Your task to perform on an android device: clear history in the chrome app Image 0: 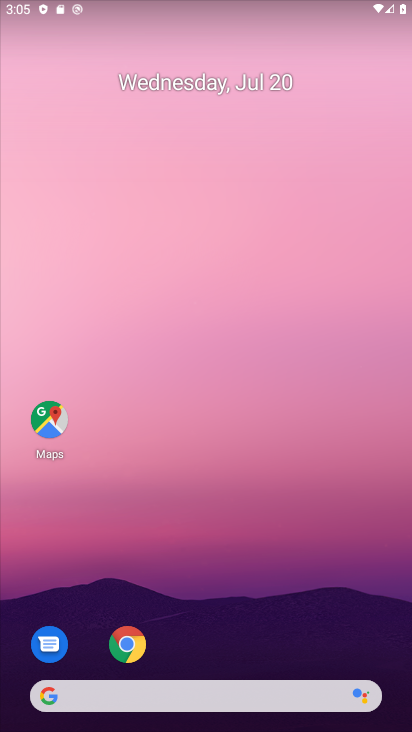
Step 0: click (136, 651)
Your task to perform on an android device: clear history in the chrome app Image 1: 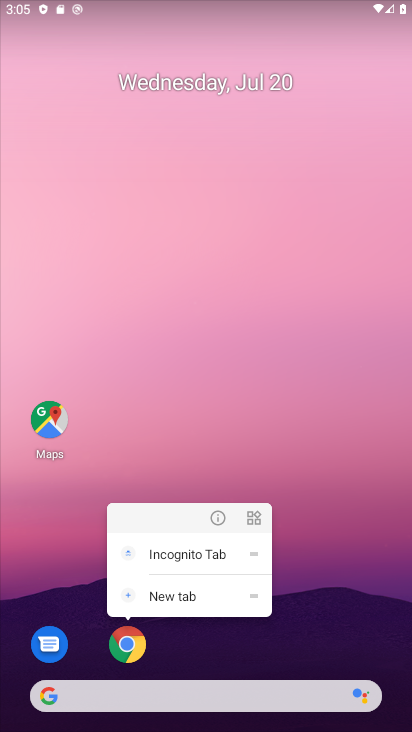
Step 1: click (136, 651)
Your task to perform on an android device: clear history in the chrome app Image 2: 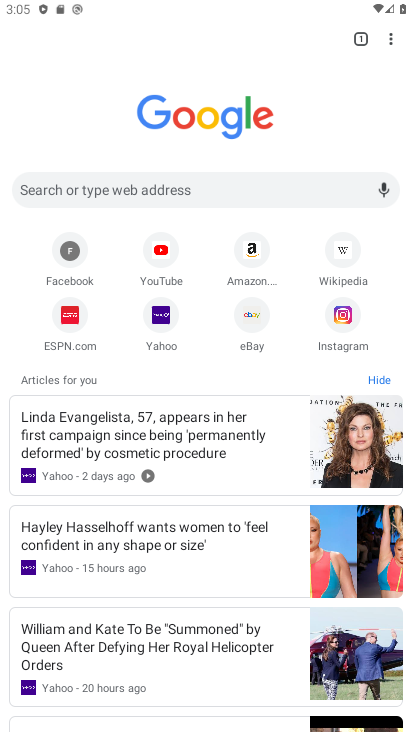
Step 2: click (392, 39)
Your task to perform on an android device: clear history in the chrome app Image 3: 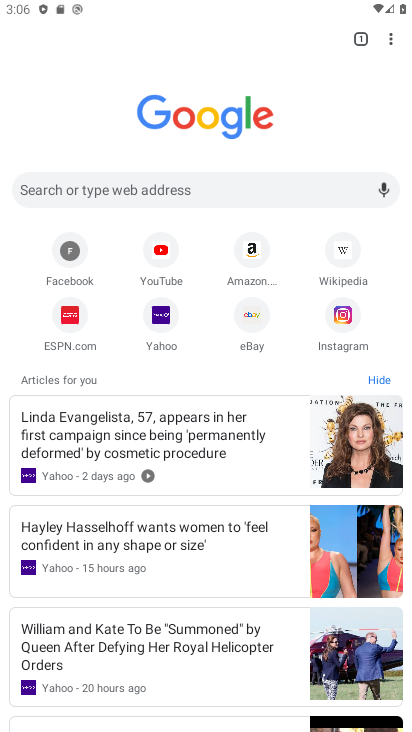
Step 3: click (389, 35)
Your task to perform on an android device: clear history in the chrome app Image 4: 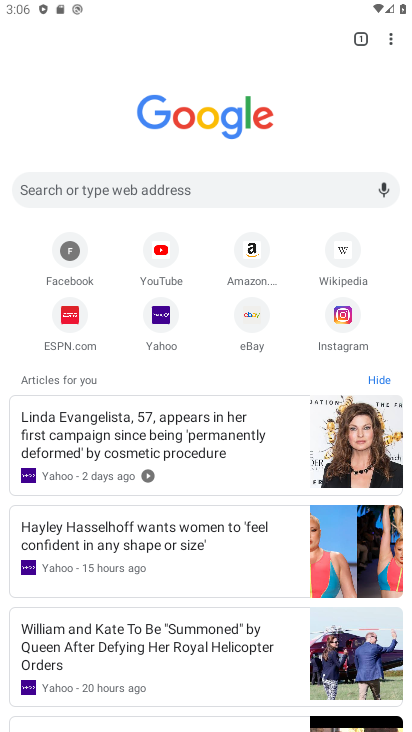
Step 4: click (389, 32)
Your task to perform on an android device: clear history in the chrome app Image 5: 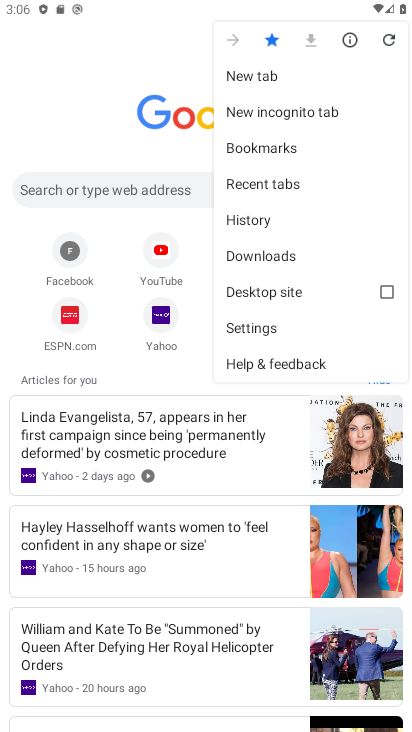
Step 5: click (239, 222)
Your task to perform on an android device: clear history in the chrome app Image 6: 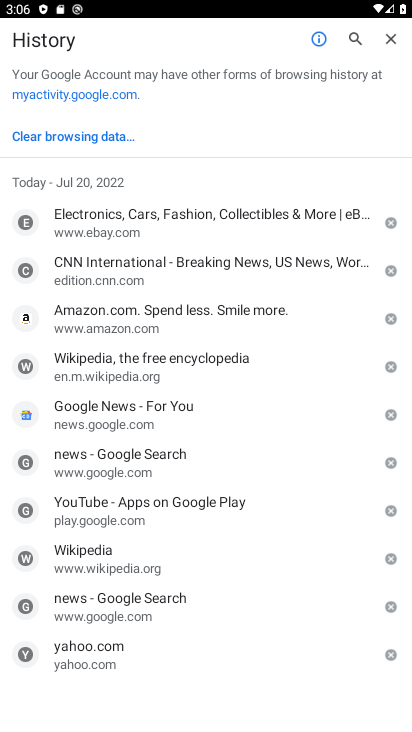
Step 6: click (61, 137)
Your task to perform on an android device: clear history in the chrome app Image 7: 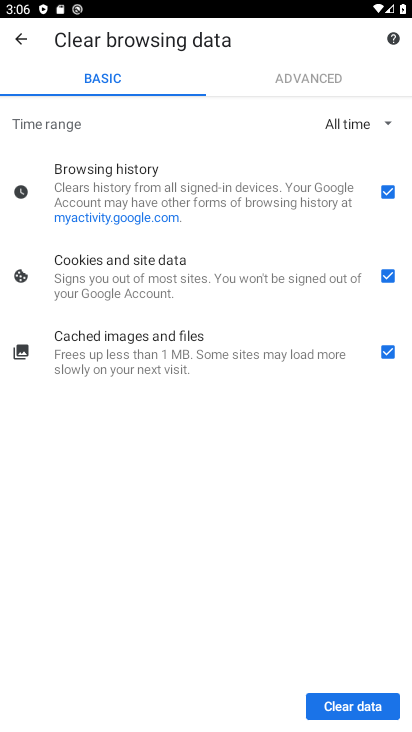
Step 7: click (378, 274)
Your task to perform on an android device: clear history in the chrome app Image 8: 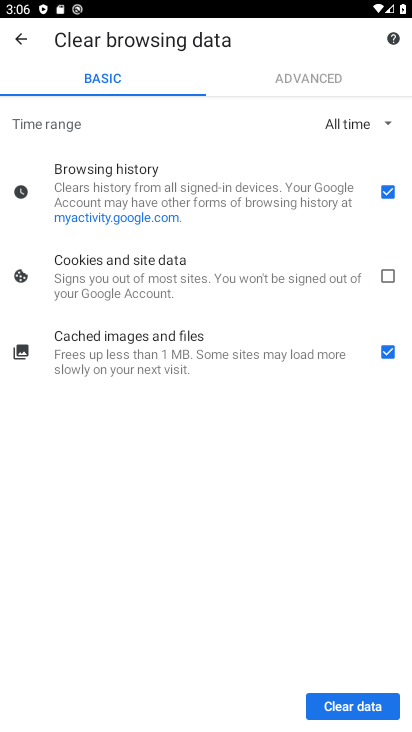
Step 8: click (387, 350)
Your task to perform on an android device: clear history in the chrome app Image 9: 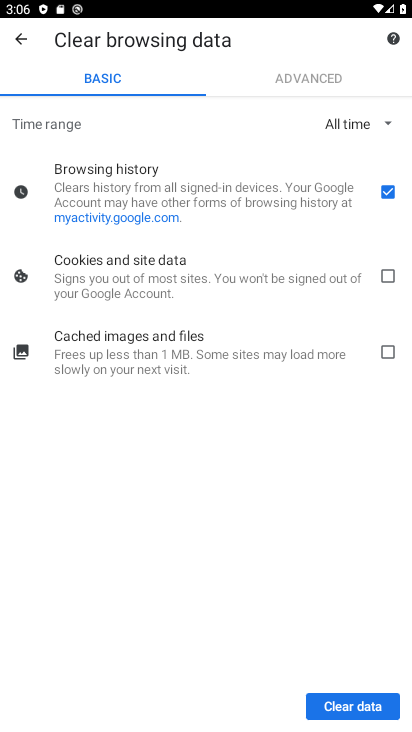
Step 9: click (367, 707)
Your task to perform on an android device: clear history in the chrome app Image 10: 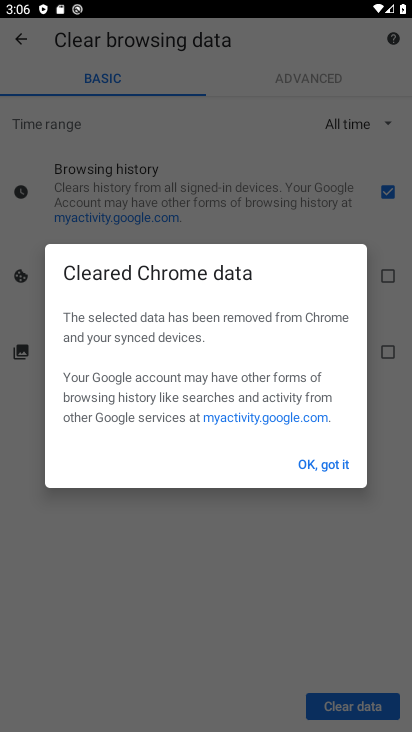
Step 10: click (311, 460)
Your task to perform on an android device: clear history in the chrome app Image 11: 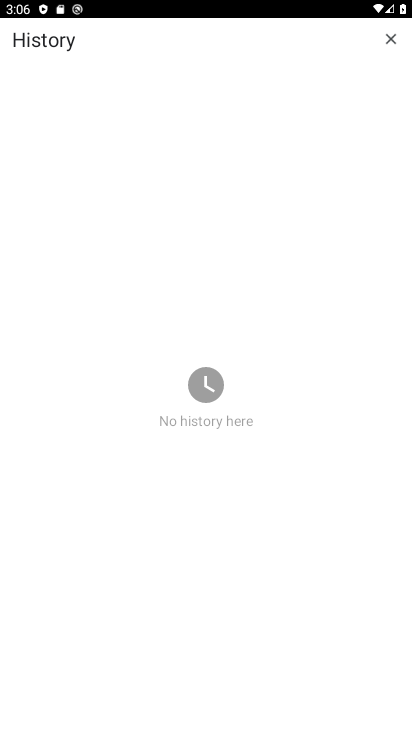
Step 11: task complete